Your task to perform on an android device: change the clock display to show seconds Image 0: 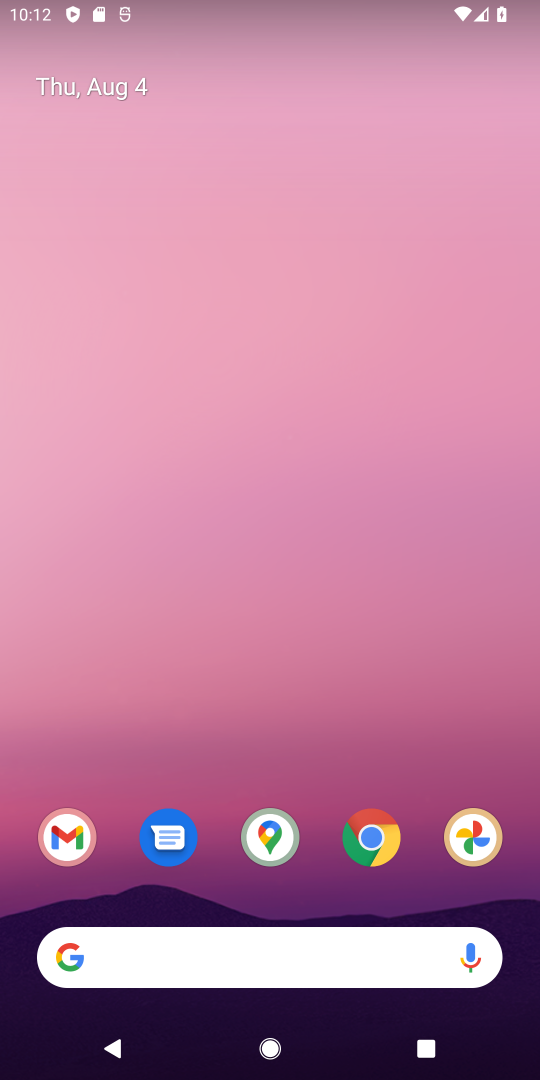
Step 0: drag from (397, 746) to (185, 73)
Your task to perform on an android device: change the clock display to show seconds Image 1: 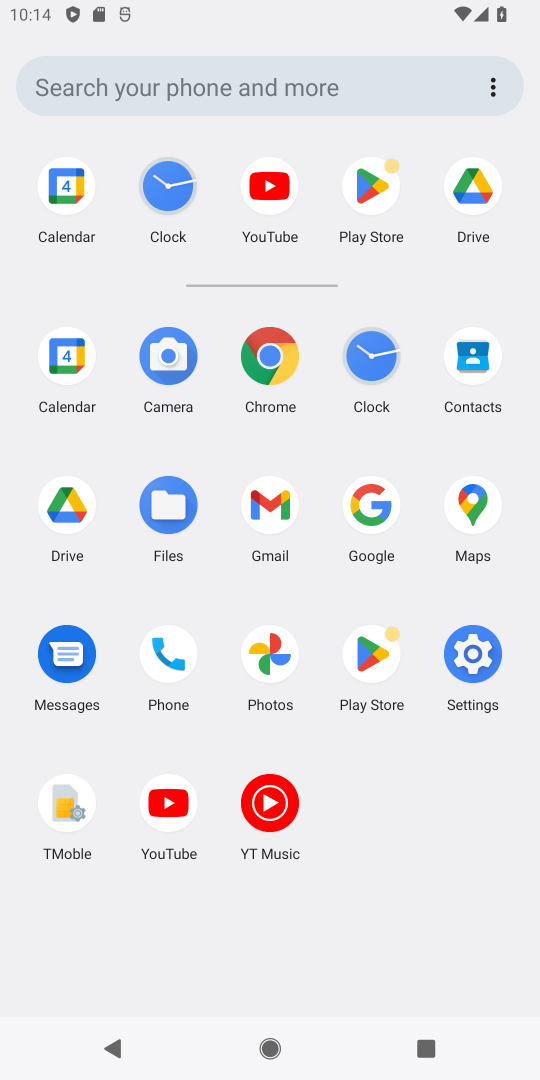
Step 1: click (372, 359)
Your task to perform on an android device: change the clock display to show seconds Image 2: 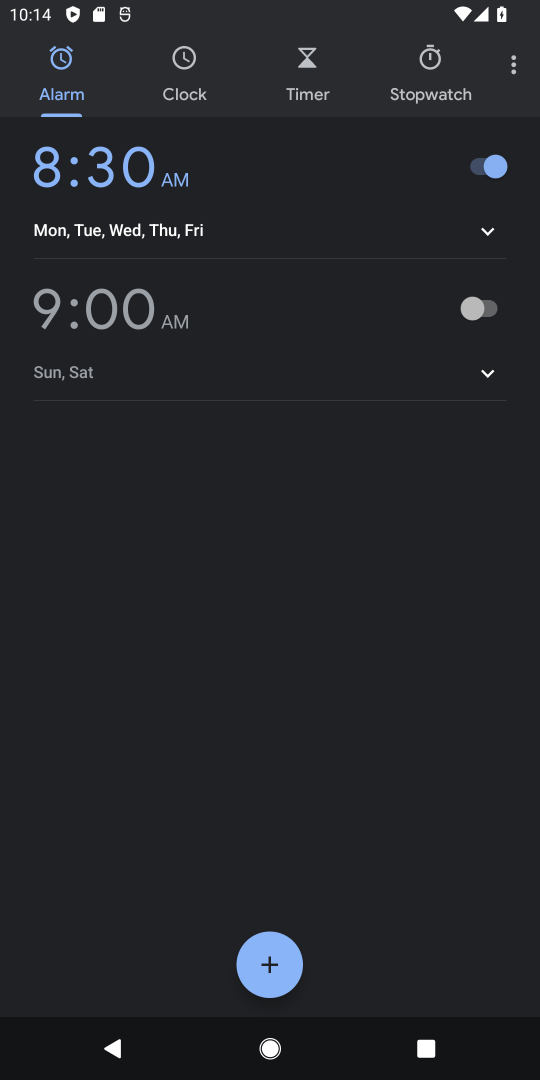
Step 2: click (509, 60)
Your task to perform on an android device: change the clock display to show seconds Image 3: 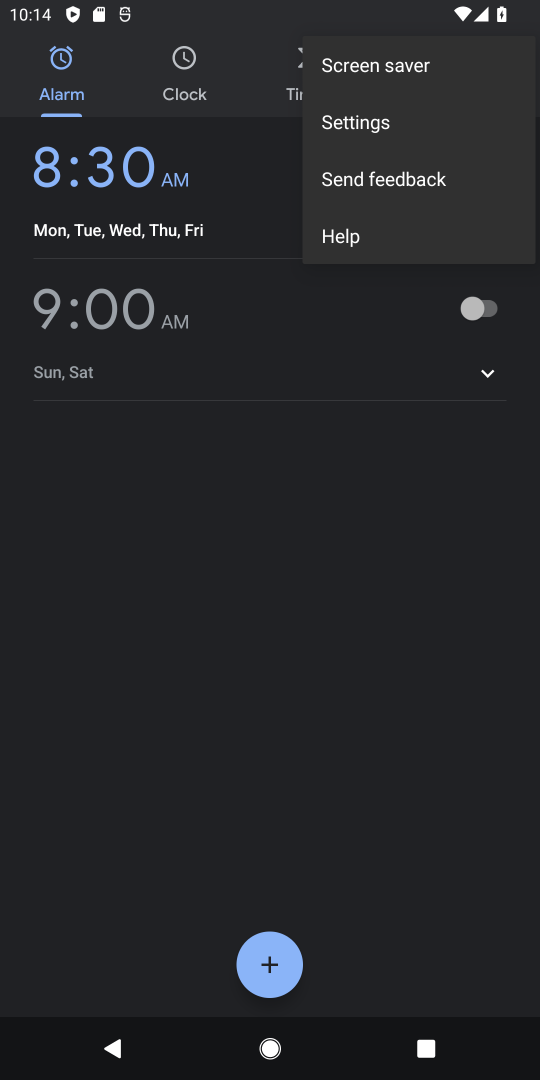
Step 3: click (367, 115)
Your task to perform on an android device: change the clock display to show seconds Image 4: 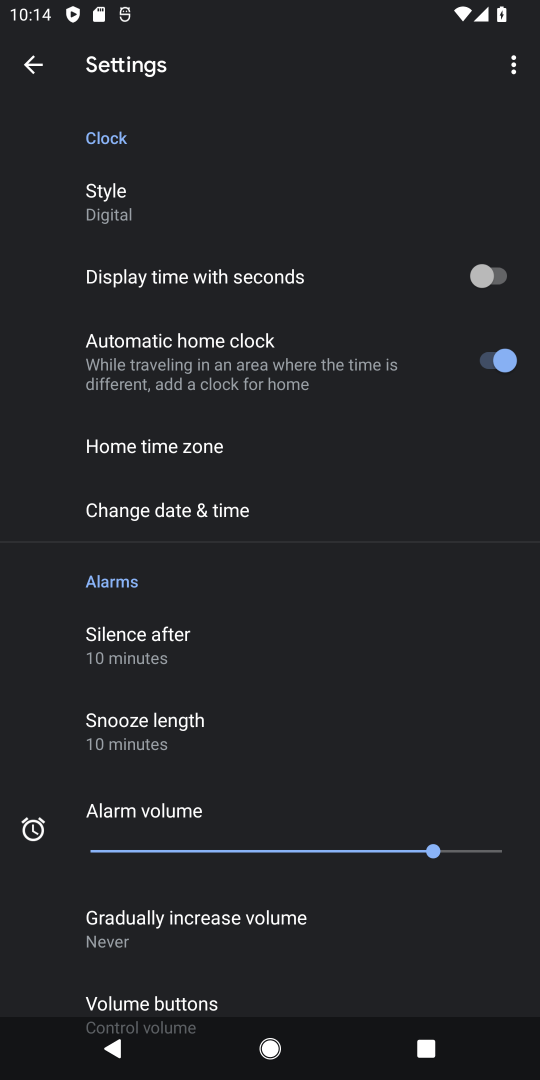
Step 4: click (487, 272)
Your task to perform on an android device: change the clock display to show seconds Image 5: 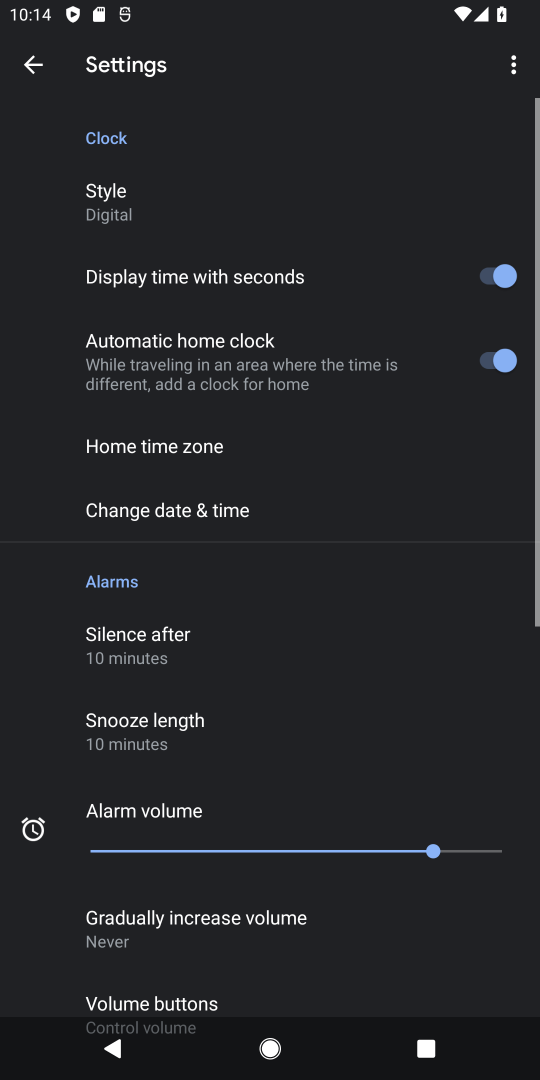
Step 5: task complete